Your task to perform on an android device: uninstall "Upside-Cash back on gas & food" Image 0: 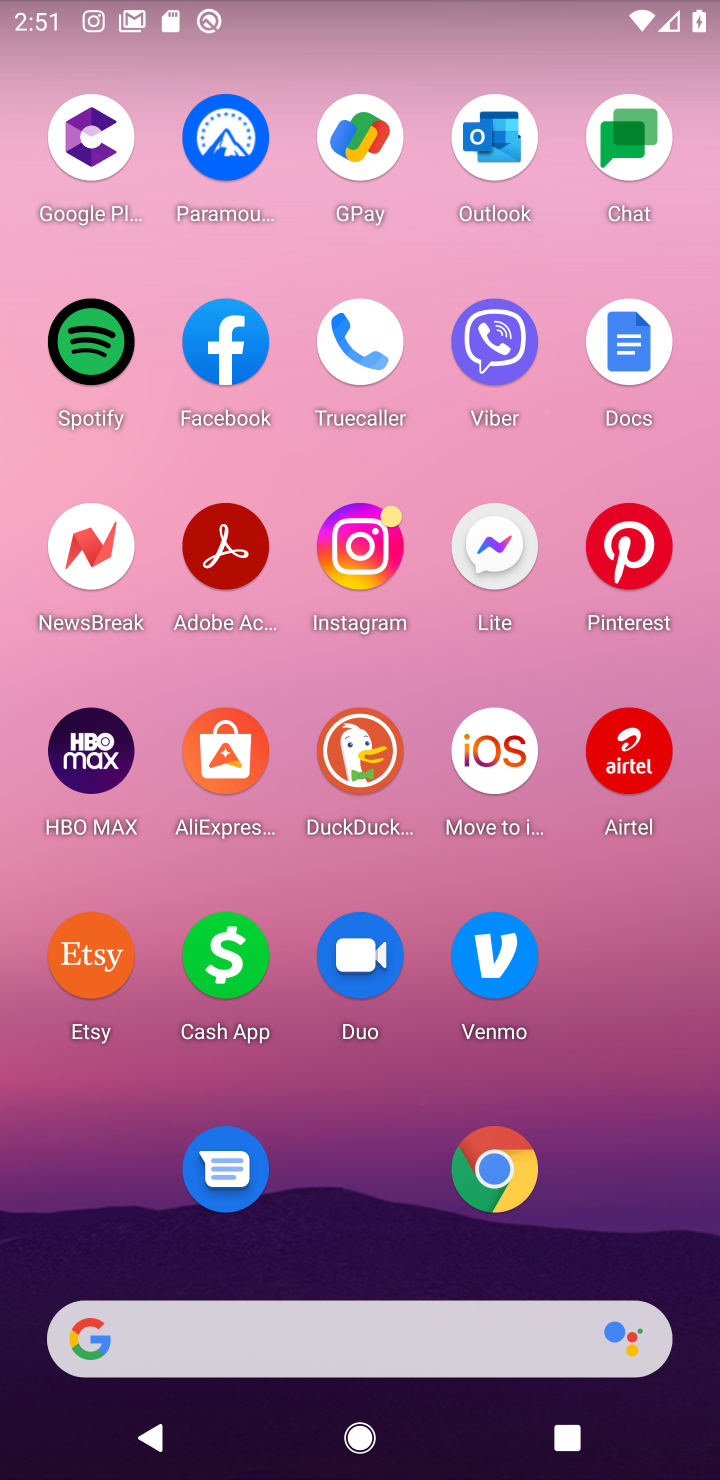
Step 0: drag from (429, 165) to (532, 379)
Your task to perform on an android device: uninstall "Upside-Cash back on gas & food" Image 1: 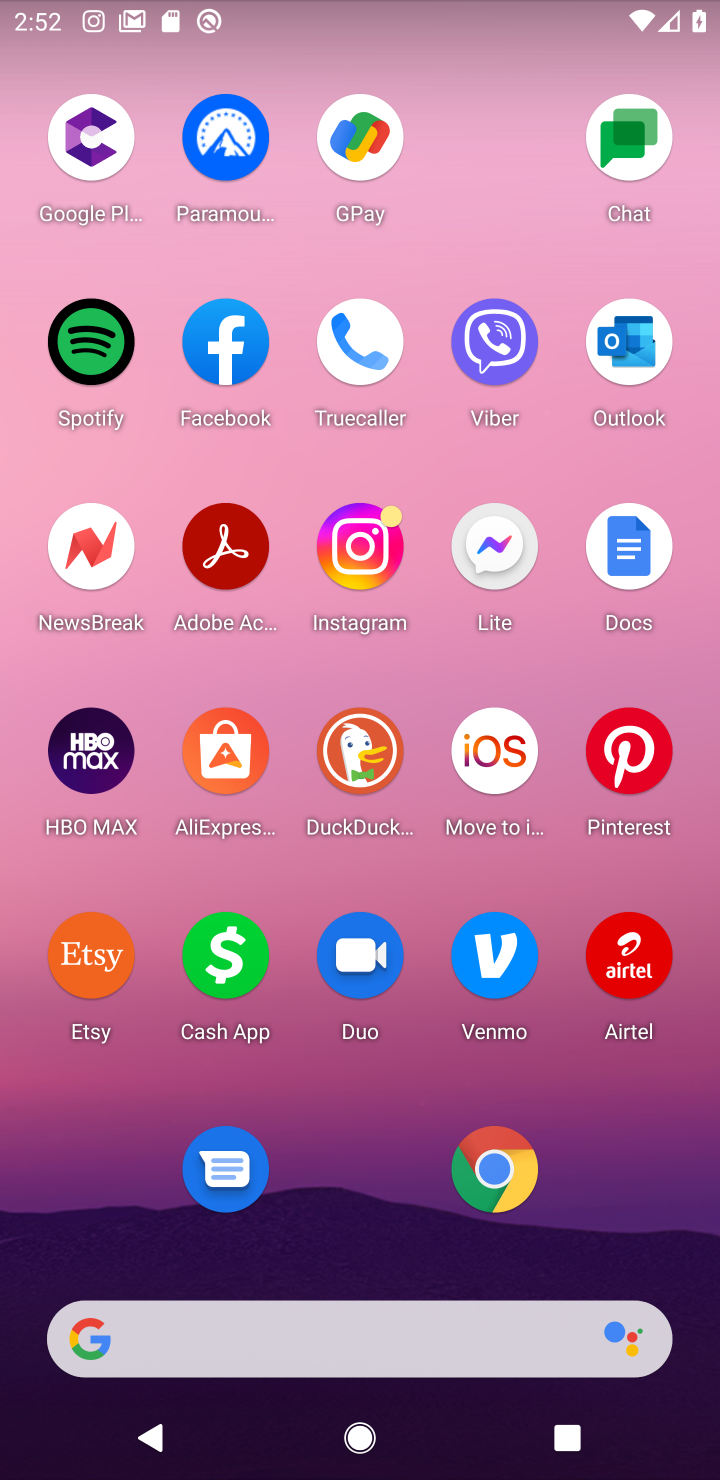
Step 1: drag from (341, 1137) to (489, 477)
Your task to perform on an android device: uninstall "Upside-Cash back on gas & food" Image 2: 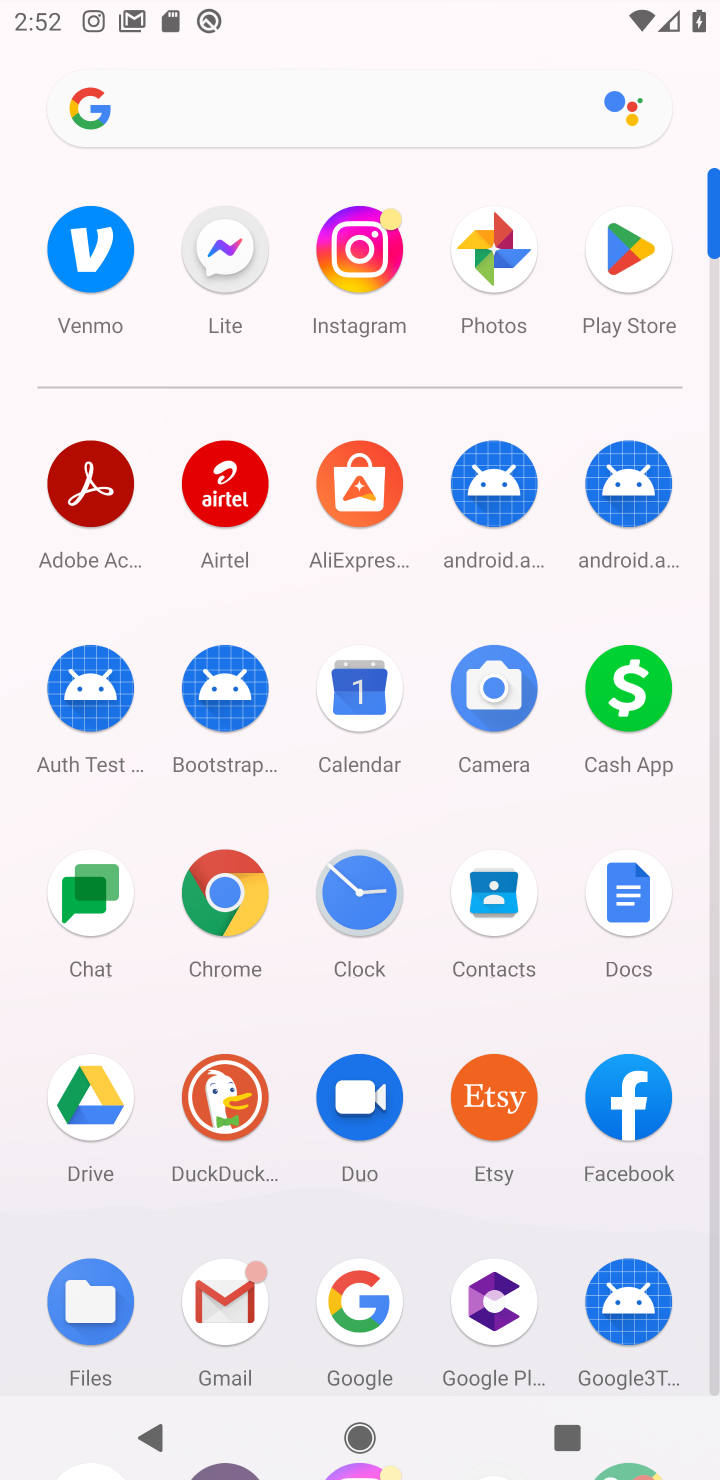
Step 2: click (622, 263)
Your task to perform on an android device: uninstall "Upside-Cash back on gas & food" Image 3: 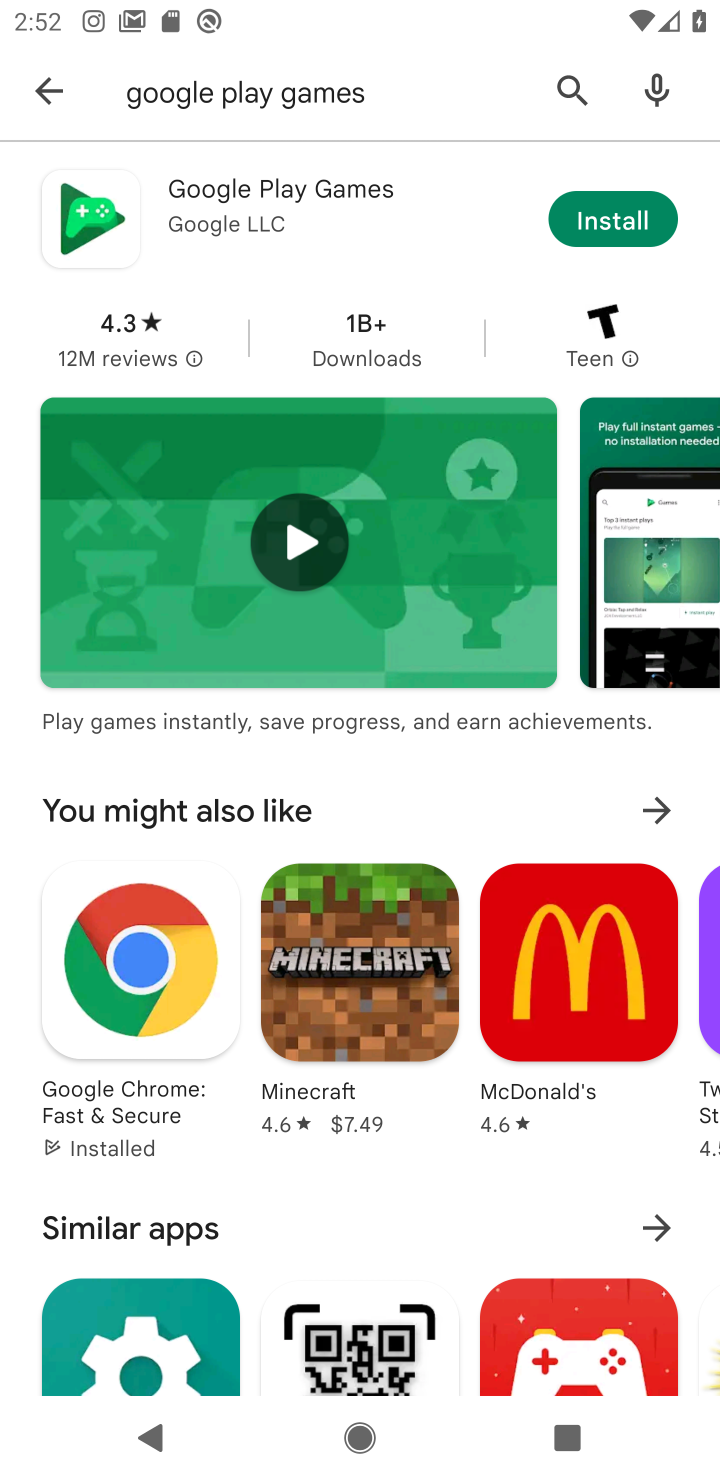
Step 3: click (38, 86)
Your task to perform on an android device: uninstall "Upside-Cash back on gas & food" Image 4: 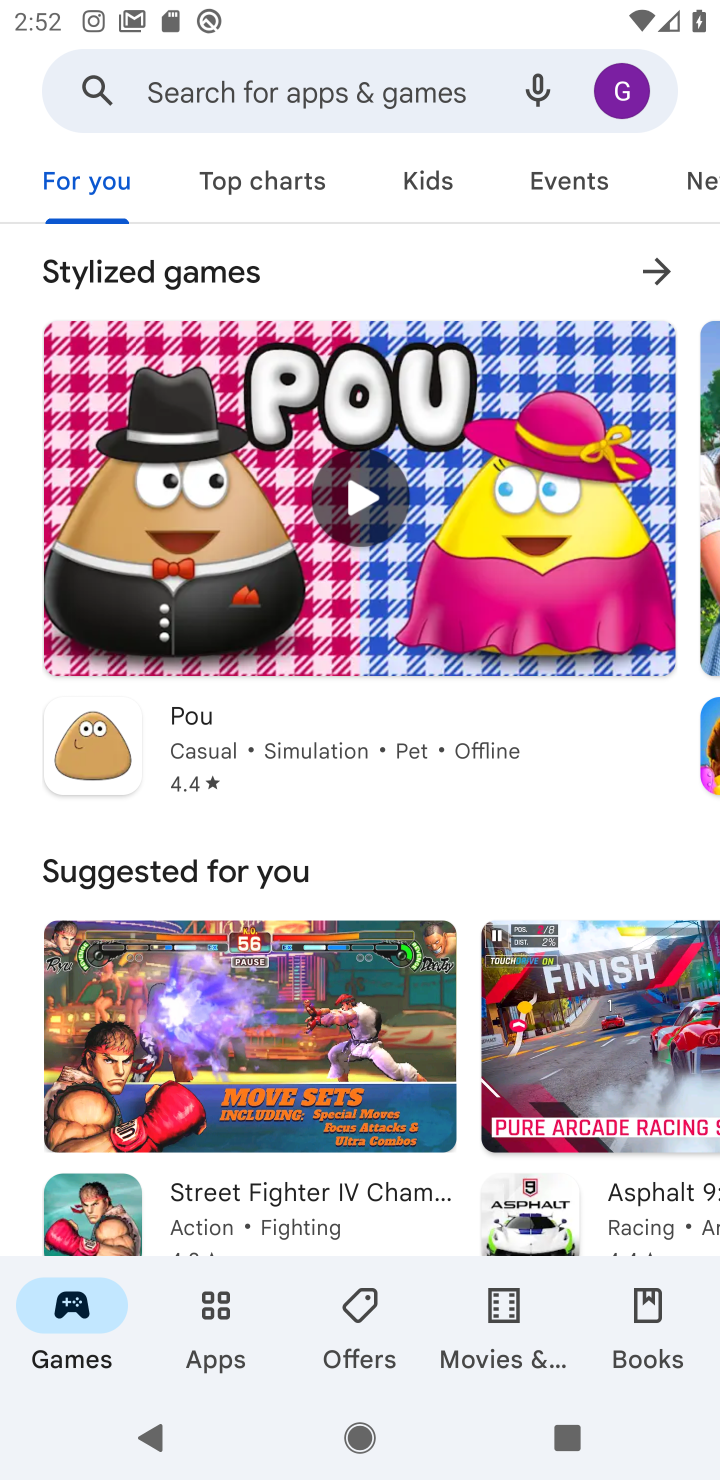
Step 4: click (280, 74)
Your task to perform on an android device: uninstall "Upside-Cash back on gas & food" Image 5: 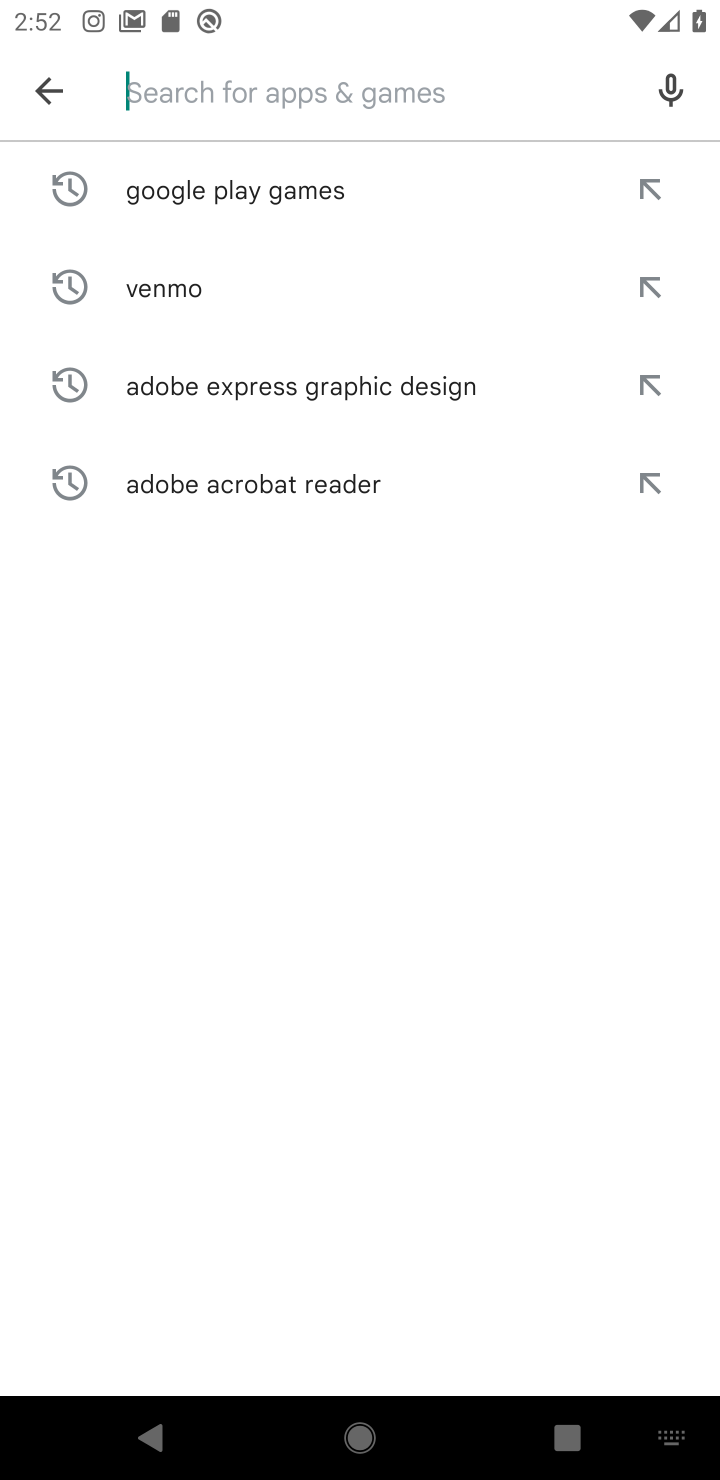
Step 5: type "Upside-Cash back on gas & food"
Your task to perform on an android device: uninstall "Upside-Cash back on gas & food" Image 6: 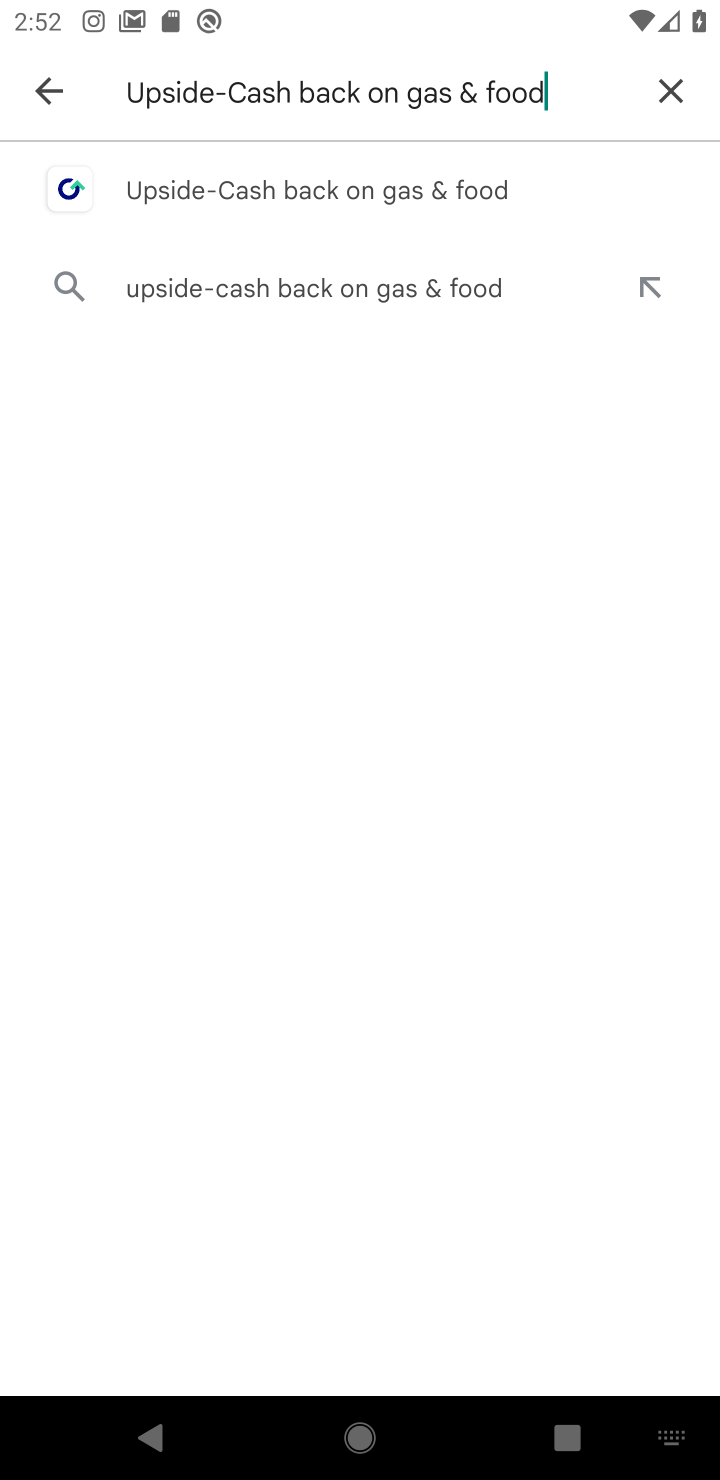
Step 6: click (295, 179)
Your task to perform on an android device: uninstall "Upside-Cash back on gas & food" Image 7: 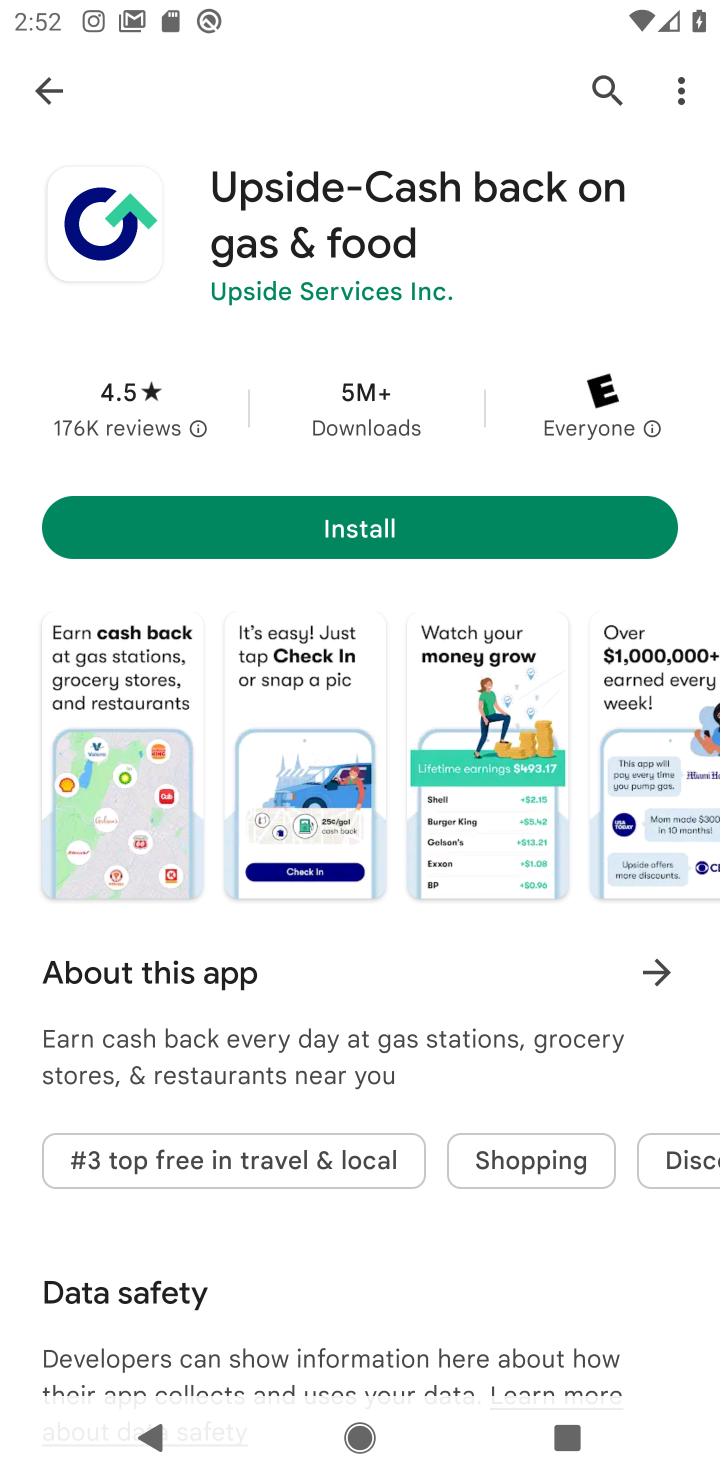
Step 7: task complete